Your task to perform on an android device: turn on sleep mode Image 0: 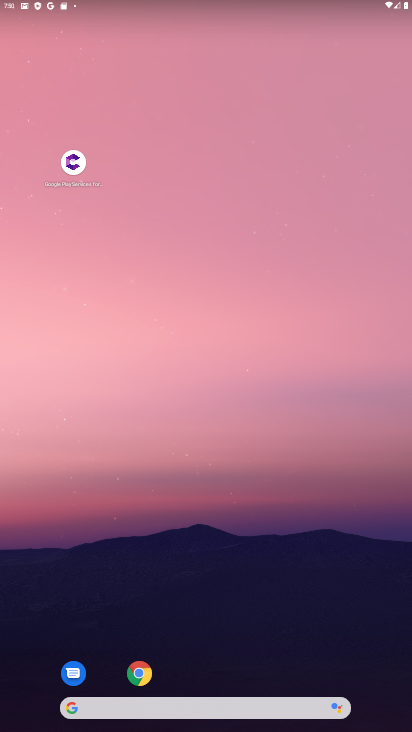
Step 0: drag from (207, 646) to (157, 67)
Your task to perform on an android device: turn on sleep mode Image 1: 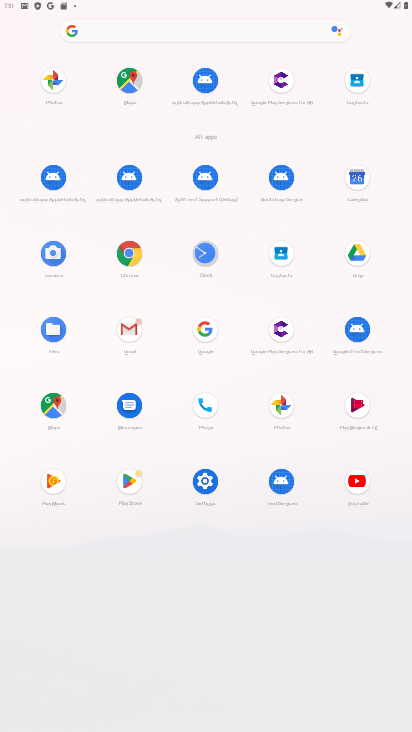
Step 1: click (205, 490)
Your task to perform on an android device: turn on sleep mode Image 2: 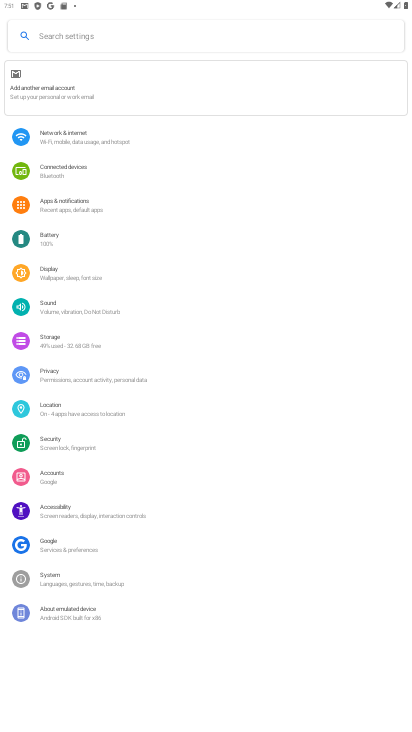
Step 2: click (47, 279)
Your task to perform on an android device: turn on sleep mode Image 3: 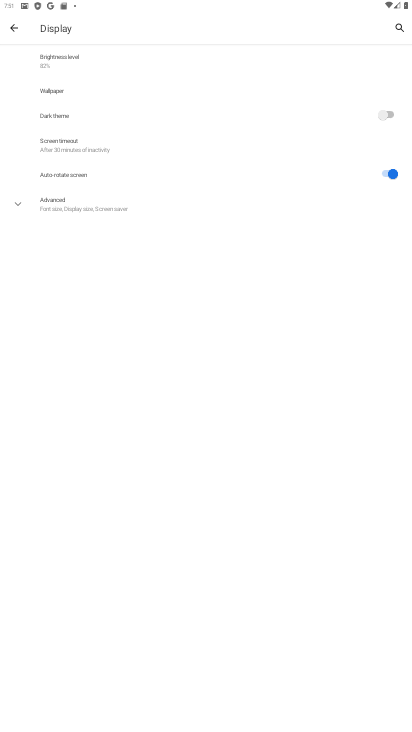
Step 3: click (61, 154)
Your task to perform on an android device: turn on sleep mode Image 4: 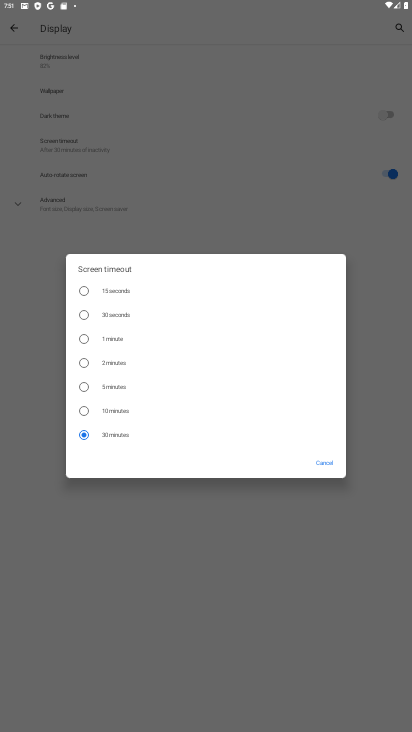
Step 4: click (91, 326)
Your task to perform on an android device: turn on sleep mode Image 5: 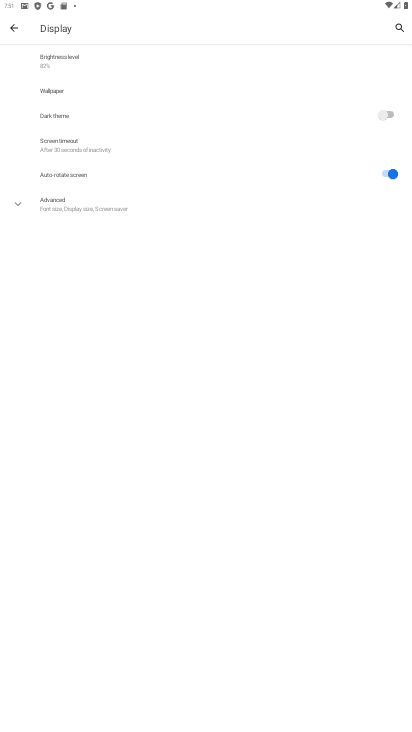
Step 5: task complete